Your task to perform on an android device: find snoozed emails in the gmail app Image 0: 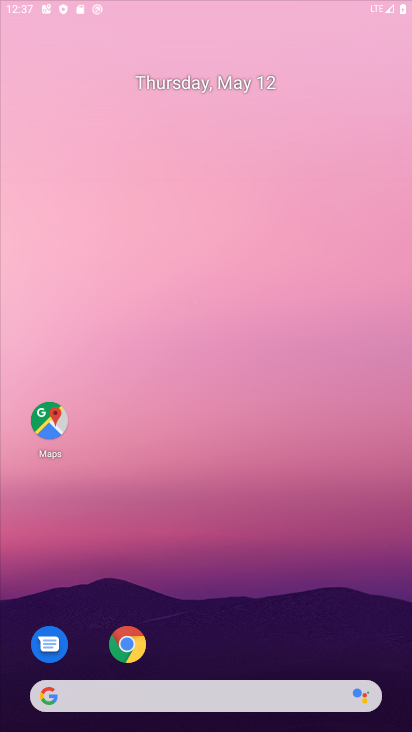
Step 0: click (177, 71)
Your task to perform on an android device: find snoozed emails in the gmail app Image 1: 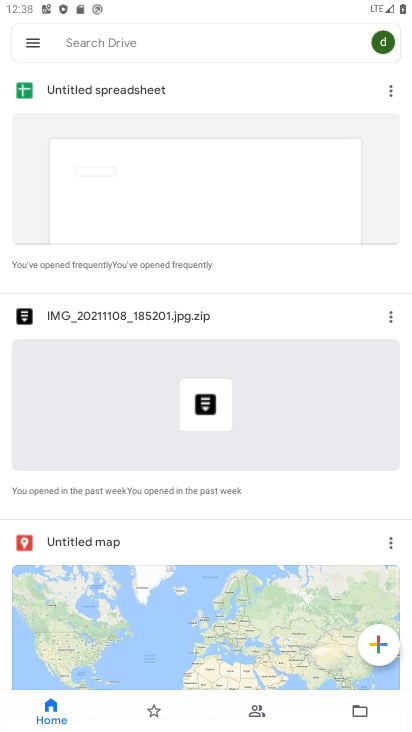
Step 1: press home button
Your task to perform on an android device: find snoozed emails in the gmail app Image 2: 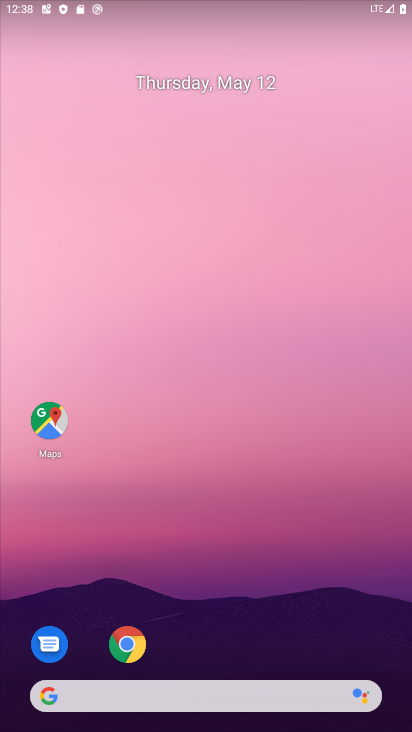
Step 2: drag from (210, 461) to (167, 42)
Your task to perform on an android device: find snoozed emails in the gmail app Image 3: 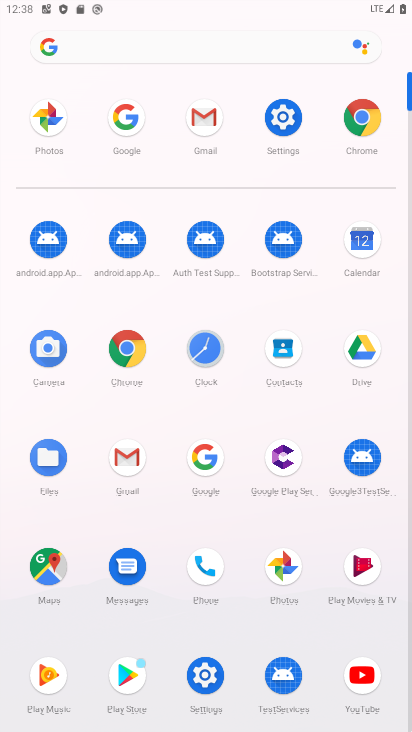
Step 3: click (211, 107)
Your task to perform on an android device: find snoozed emails in the gmail app Image 4: 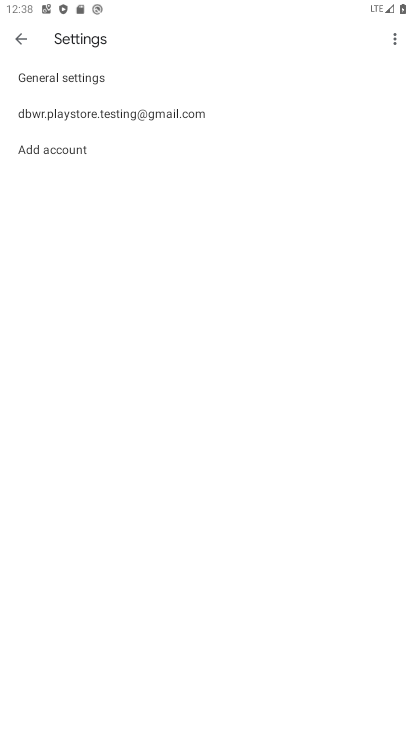
Step 4: click (24, 37)
Your task to perform on an android device: find snoozed emails in the gmail app Image 5: 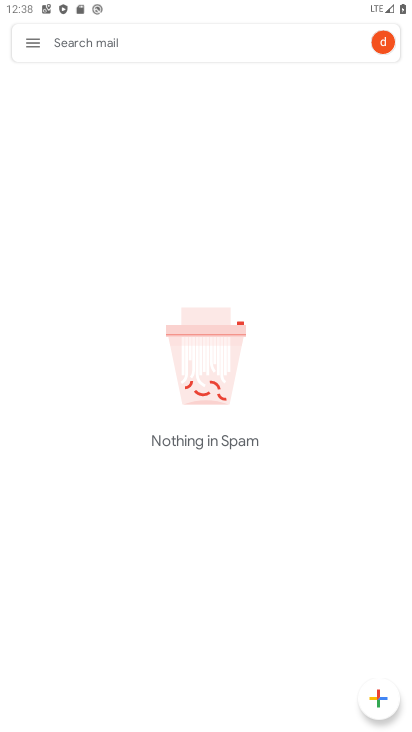
Step 5: click (35, 42)
Your task to perform on an android device: find snoozed emails in the gmail app Image 6: 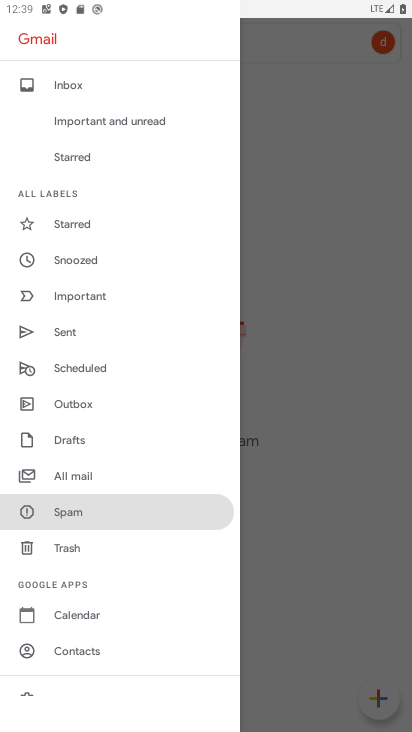
Step 6: click (96, 248)
Your task to perform on an android device: find snoozed emails in the gmail app Image 7: 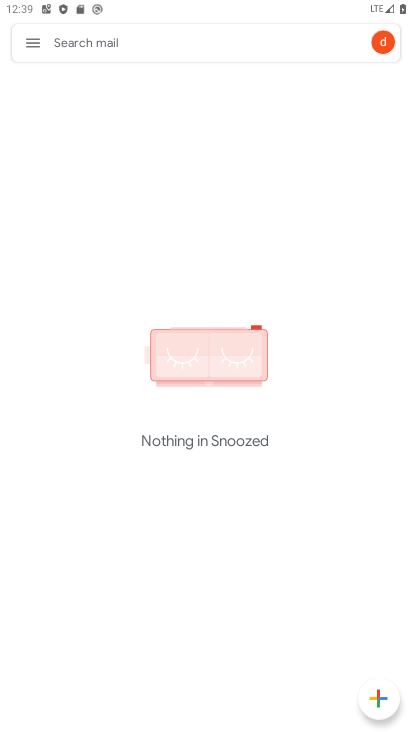
Step 7: task complete